Your task to perform on an android device: Open network settings Image 0: 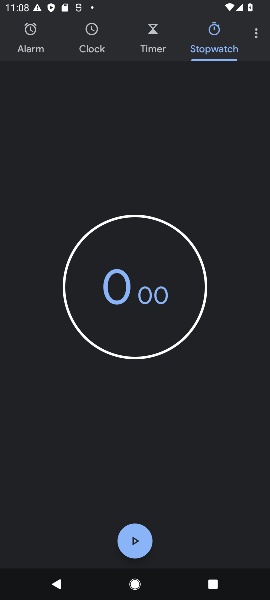
Step 0: press home button
Your task to perform on an android device: Open network settings Image 1: 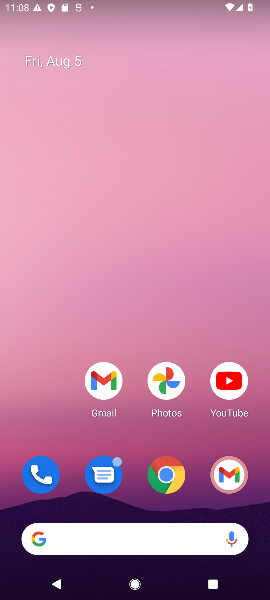
Step 1: drag from (135, 504) to (148, 91)
Your task to perform on an android device: Open network settings Image 2: 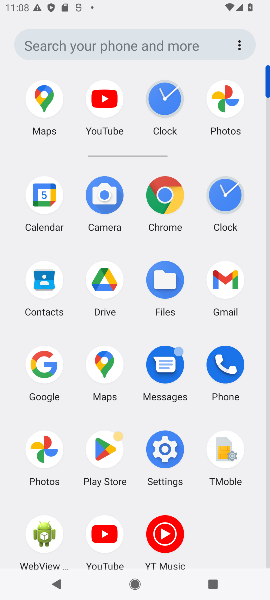
Step 2: click (162, 457)
Your task to perform on an android device: Open network settings Image 3: 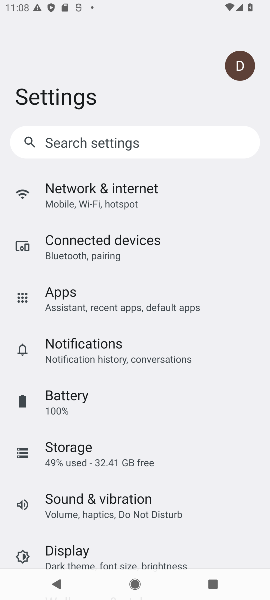
Step 3: click (108, 207)
Your task to perform on an android device: Open network settings Image 4: 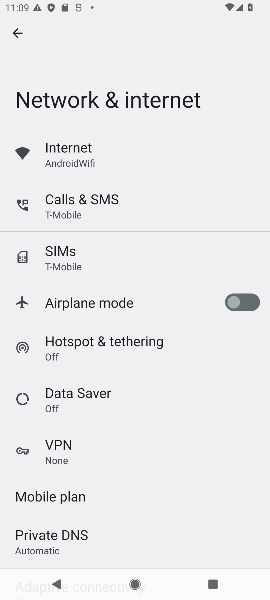
Step 4: click (77, 162)
Your task to perform on an android device: Open network settings Image 5: 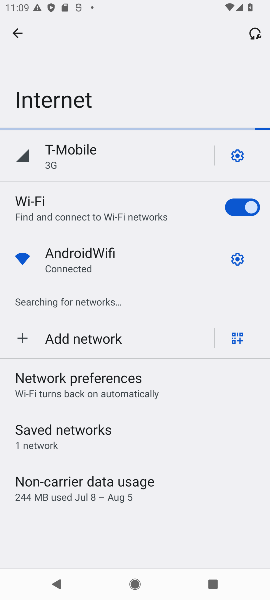
Step 5: task complete